Your task to perform on an android device: Open calendar and show me the second week of next month Image 0: 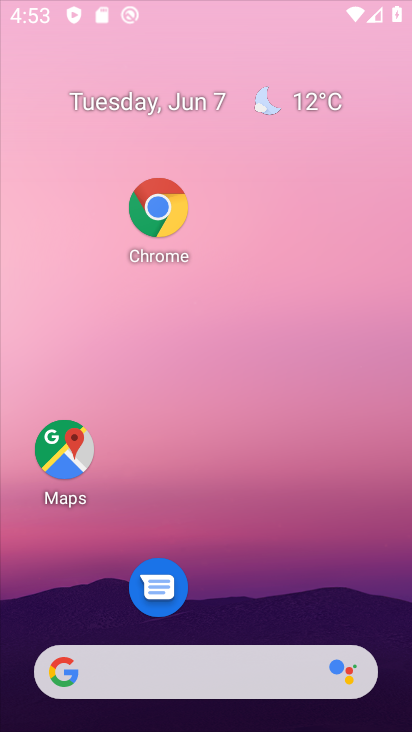
Step 0: drag from (154, 55) to (93, 65)
Your task to perform on an android device: Open calendar and show me the second week of next month Image 1: 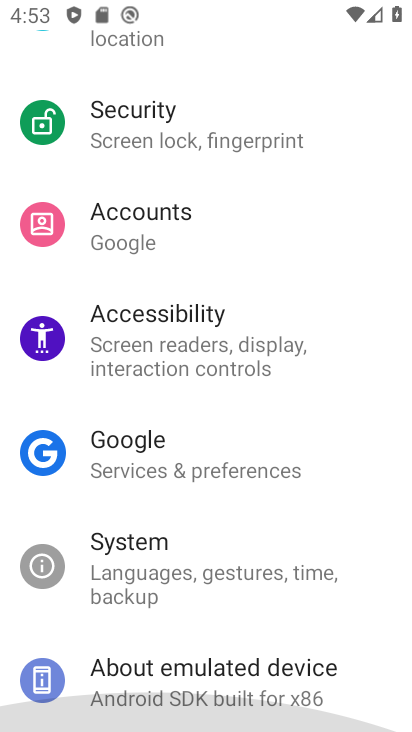
Step 1: drag from (180, 536) to (133, 180)
Your task to perform on an android device: Open calendar and show me the second week of next month Image 2: 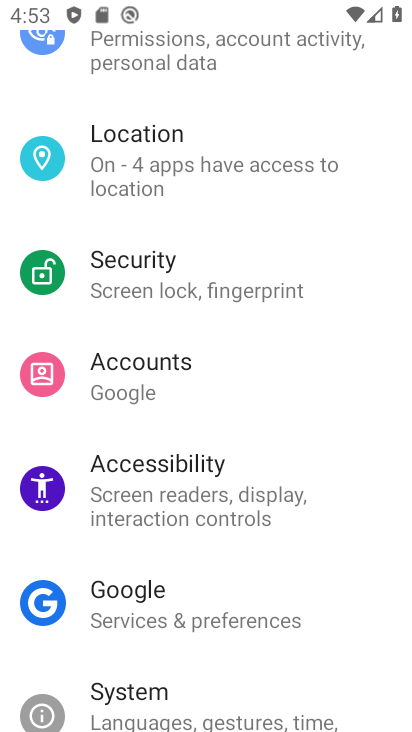
Step 2: press back button
Your task to perform on an android device: Open calendar and show me the second week of next month Image 3: 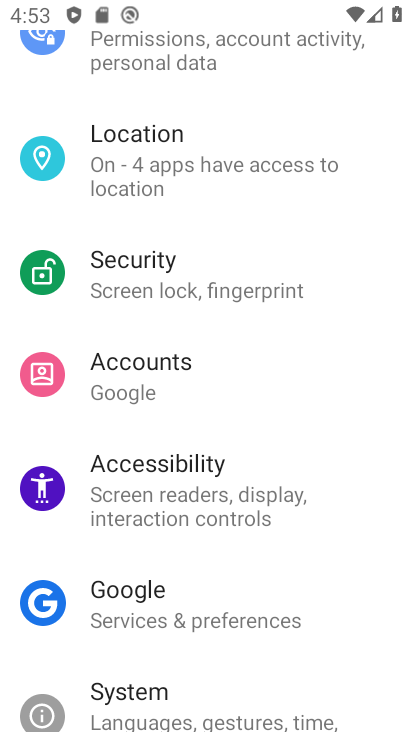
Step 3: press back button
Your task to perform on an android device: Open calendar and show me the second week of next month Image 4: 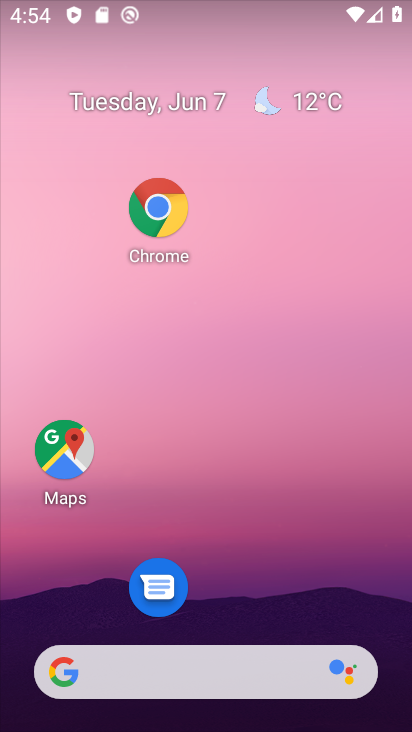
Step 4: drag from (272, 526) to (210, 21)
Your task to perform on an android device: Open calendar and show me the second week of next month Image 5: 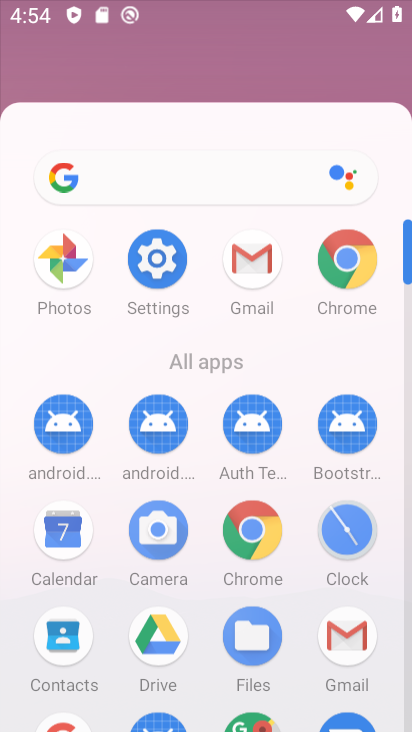
Step 5: drag from (262, 457) to (198, 92)
Your task to perform on an android device: Open calendar and show me the second week of next month Image 6: 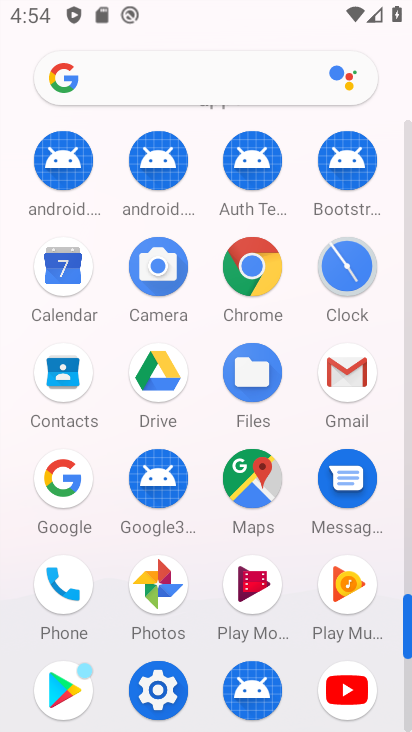
Step 6: click (67, 285)
Your task to perform on an android device: Open calendar and show me the second week of next month Image 7: 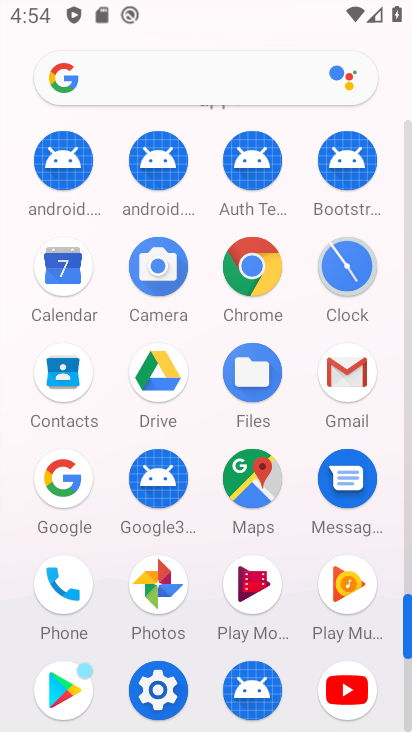
Step 7: click (67, 285)
Your task to perform on an android device: Open calendar and show me the second week of next month Image 8: 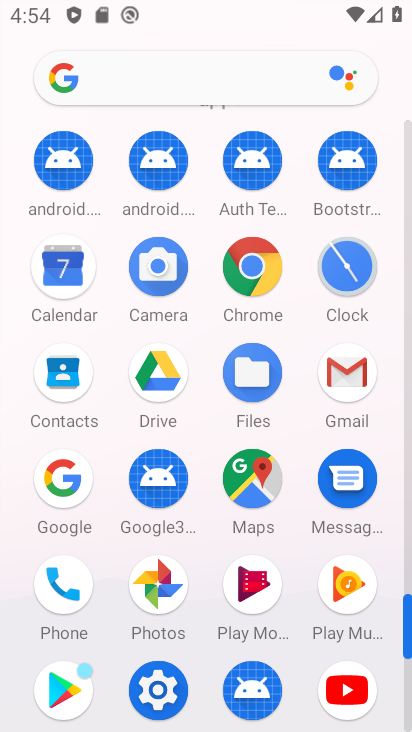
Step 8: click (61, 284)
Your task to perform on an android device: Open calendar and show me the second week of next month Image 9: 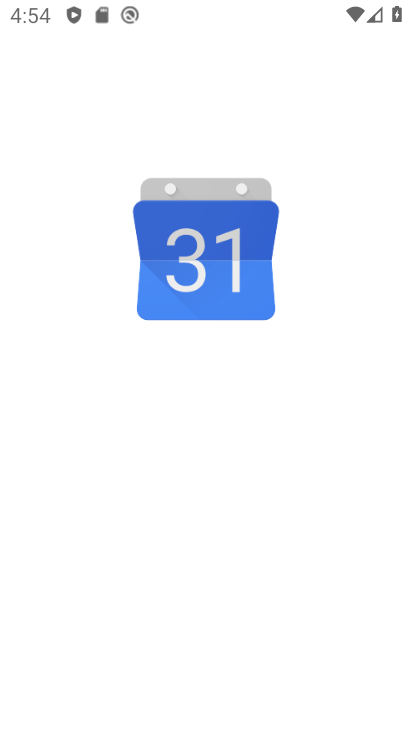
Step 9: click (62, 283)
Your task to perform on an android device: Open calendar and show me the second week of next month Image 10: 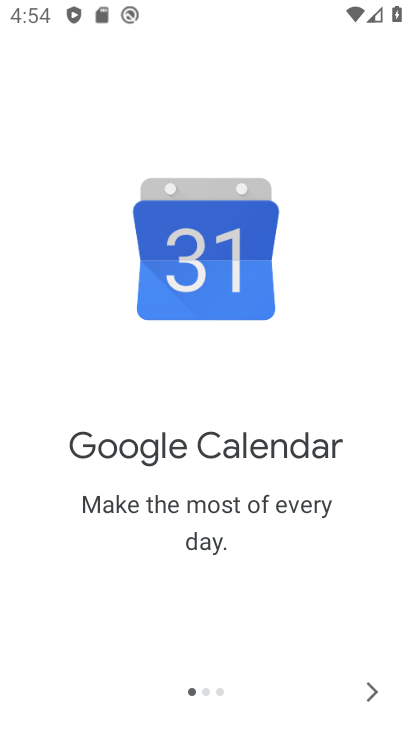
Step 10: click (352, 681)
Your task to perform on an android device: Open calendar and show me the second week of next month Image 11: 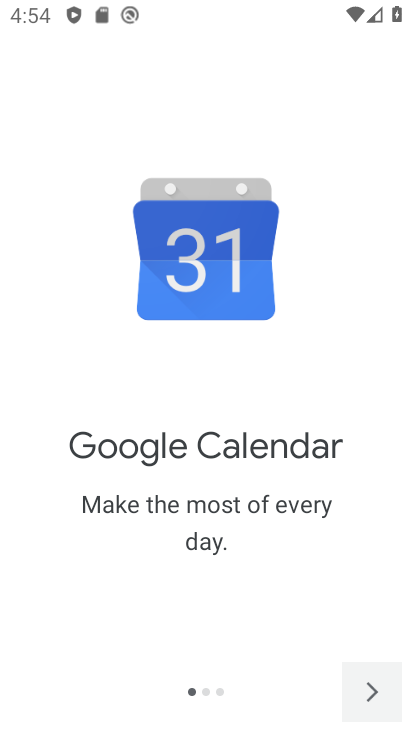
Step 11: click (372, 684)
Your task to perform on an android device: Open calendar and show me the second week of next month Image 12: 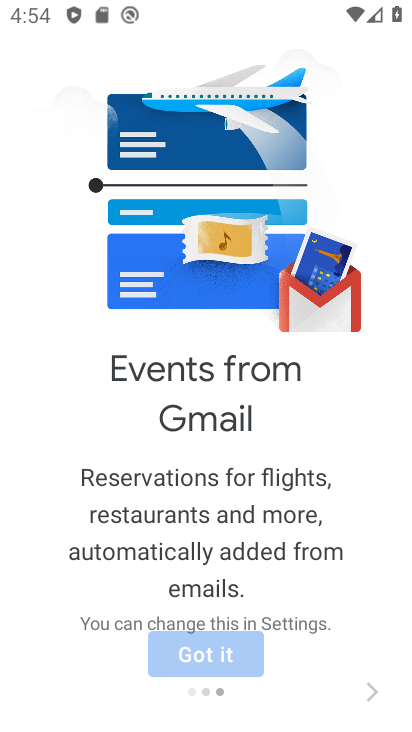
Step 12: click (373, 684)
Your task to perform on an android device: Open calendar and show me the second week of next month Image 13: 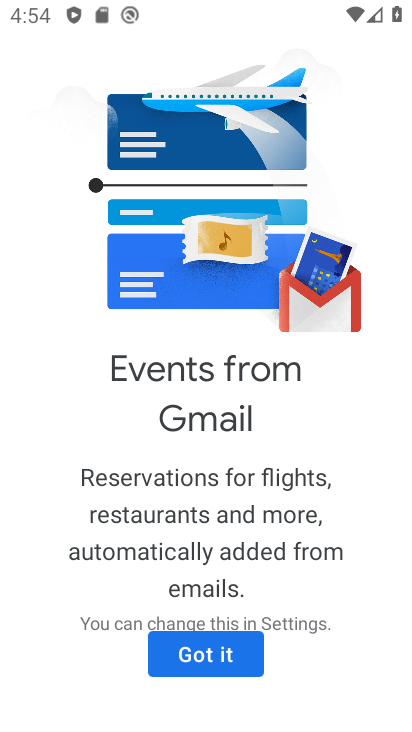
Step 13: click (179, 643)
Your task to perform on an android device: Open calendar and show me the second week of next month Image 14: 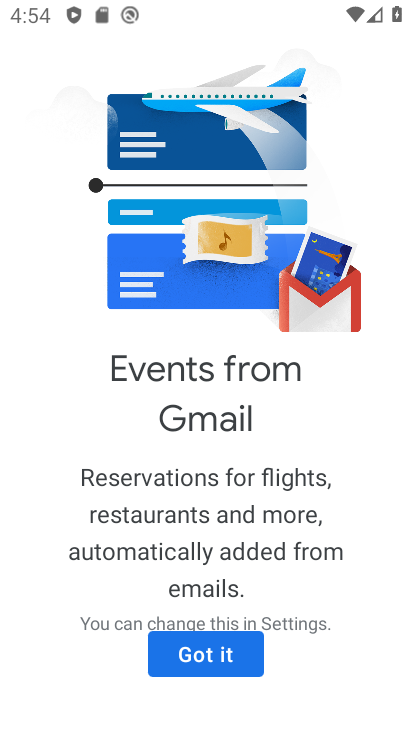
Step 14: click (179, 643)
Your task to perform on an android device: Open calendar and show me the second week of next month Image 15: 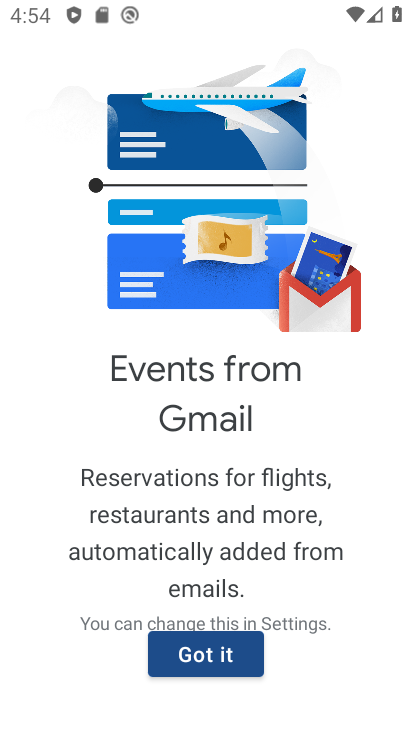
Step 15: click (179, 643)
Your task to perform on an android device: Open calendar and show me the second week of next month Image 16: 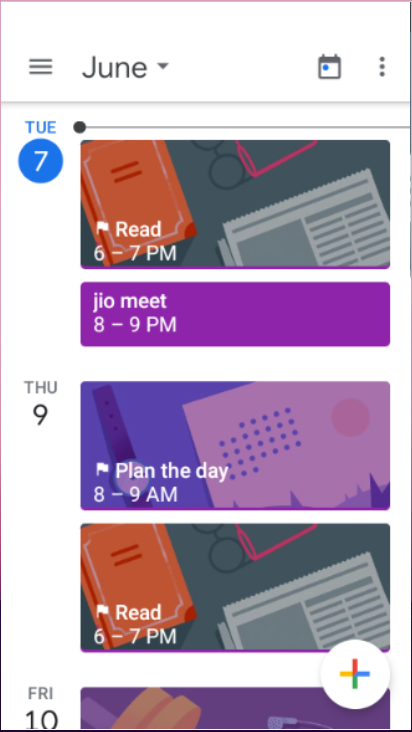
Step 16: click (215, 649)
Your task to perform on an android device: Open calendar and show me the second week of next month Image 17: 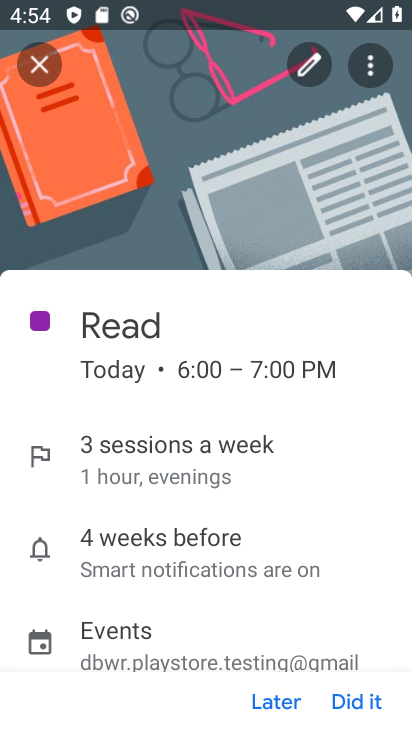
Step 17: click (42, 64)
Your task to perform on an android device: Open calendar and show me the second week of next month Image 18: 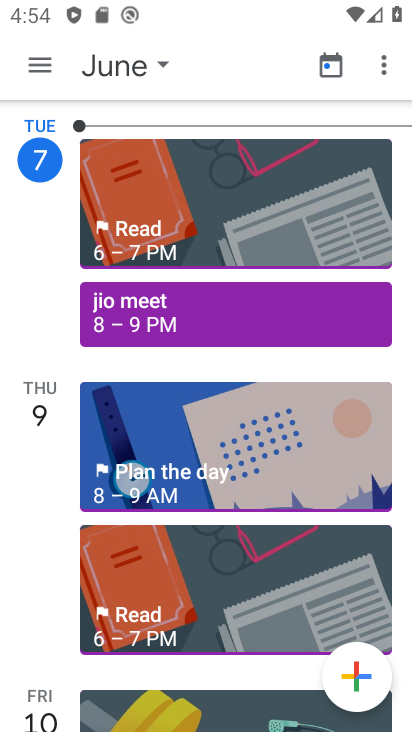
Step 18: click (167, 62)
Your task to perform on an android device: Open calendar and show me the second week of next month Image 19: 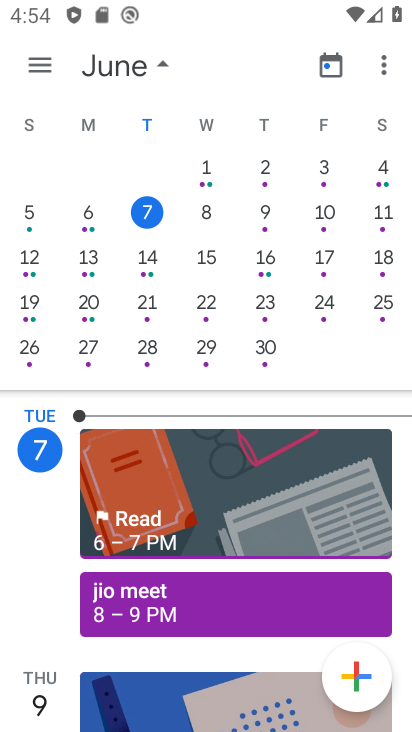
Step 19: drag from (316, 219) to (12, 311)
Your task to perform on an android device: Open calendar and show me the second week of next month Image 20: 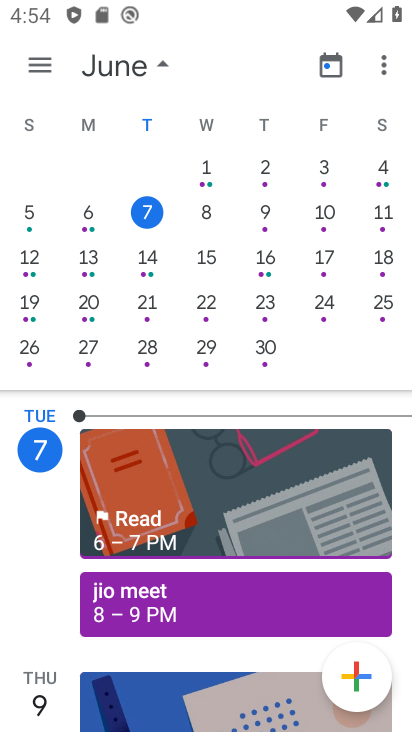
Step 20: drag from (291, 253) to (14, 347)
Your task to perform on an android device: Open calendar and show me the second week of next month Image 21: 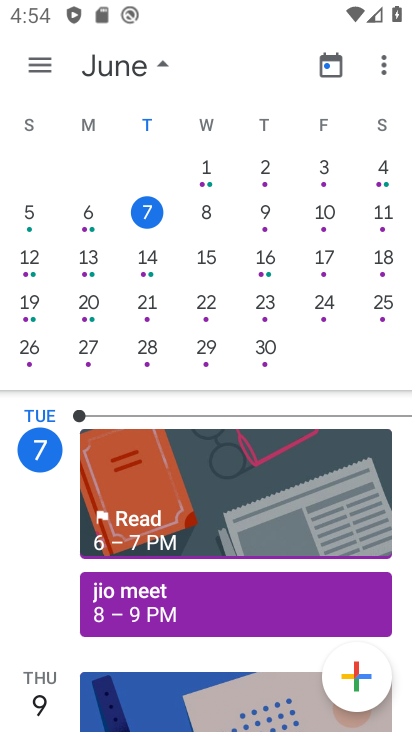
Step 21: drag from (217, 265) to (28, 281)
Your task to perform on an android device: Open calendar and show me the second week of next month Image 22: 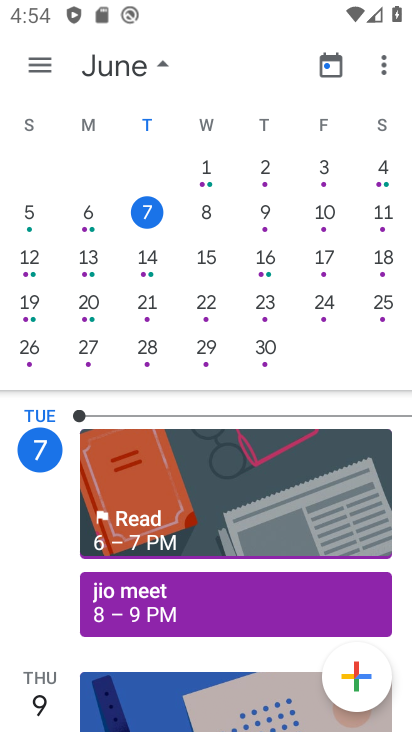
Step 22: click (39, 308)
Your task to perform on an android device: Open calendar and show me the second week of next month Image 23: 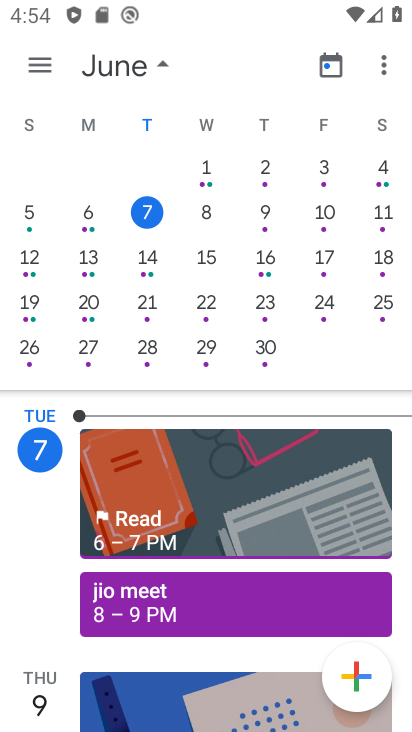
Step 23: drag from (365, 199) to (40, 278)
Your task to perform on an android device: Open calendar and show me the second week of next month Image 24: 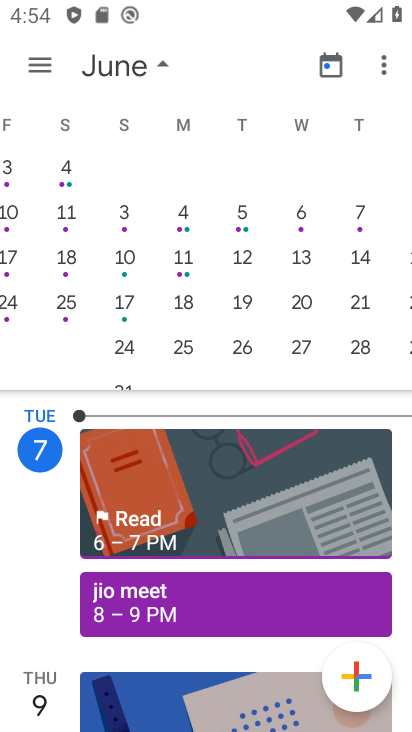
Step 24: drag from (79, 262) to (25, 234)
Your task to perform on an android device: Open calendar and show me the second week of next month Image 25: 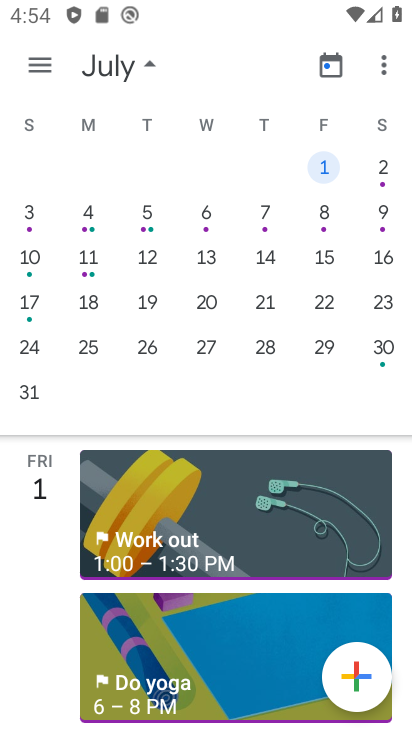
Step 25: click (273, 219)
Your task to perform on an android device: Open calendar and show me the second week of next month Image 26: 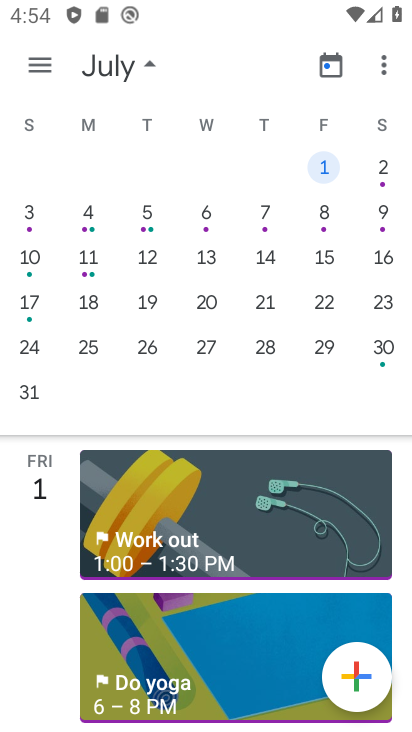
Step 26: click (254, 200)
Your task to perform on an android device: Open calendar and show me the second week of next month Image 27: 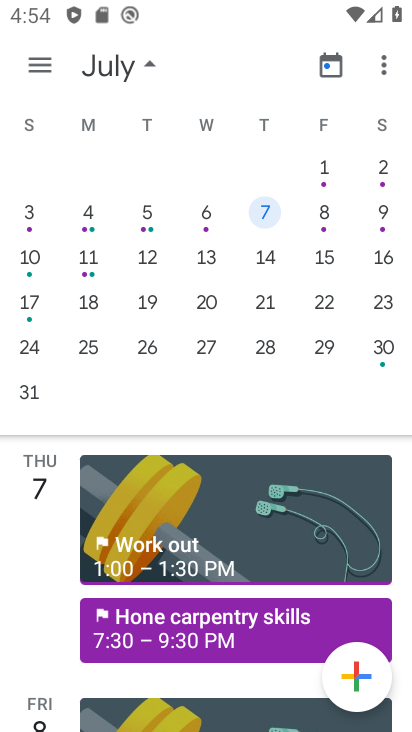
Step 27: click (257, 203)
Your task to perform on an android device: Open calendar and show me the second week of next month Image 28: 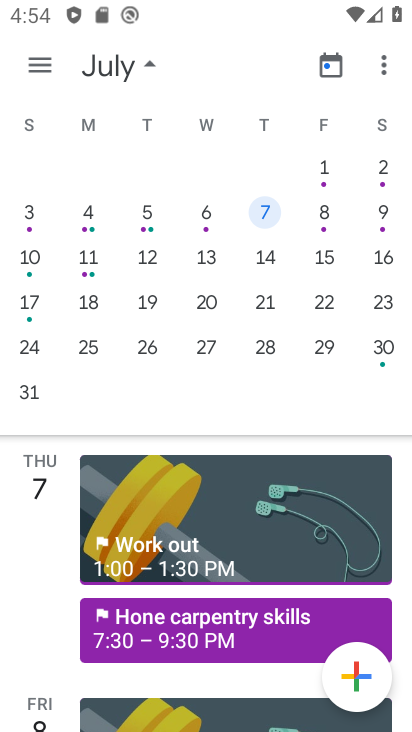
Step 28: click (258, 212)
Your task to perform on an android device: Open calendar and show me the second week of next month Image 29: 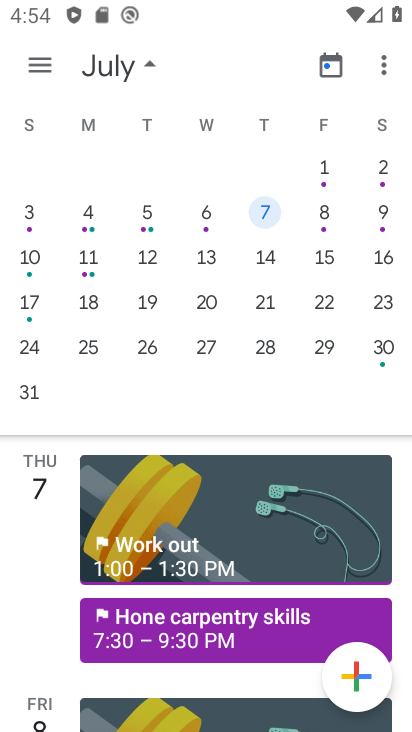
Step 29: click (258, 212)
Your task to perform on an android device: Open calendar and show me the second week of next month Image 30: 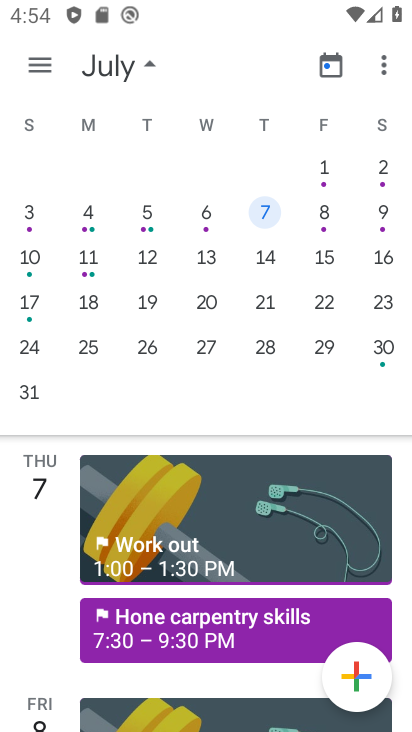
Step 30: task complete